Your task to perform on an android device: Open the Play Movies app and select the watchlist tab. Image 0: 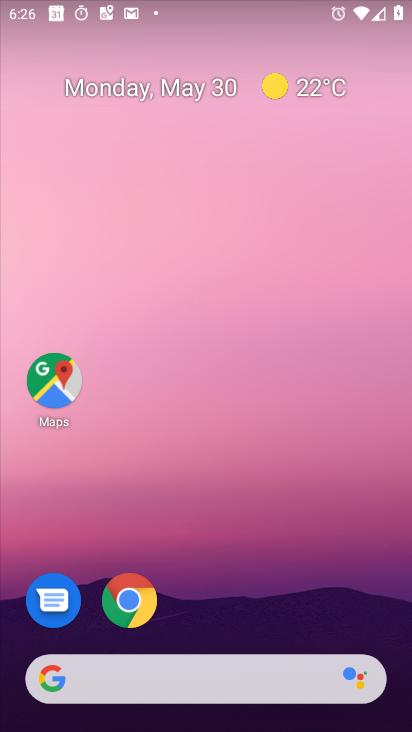
Step 0: press home button
Your task to perform on an android device: Open the Play Movies app and select the watchlist tab. Image 1: 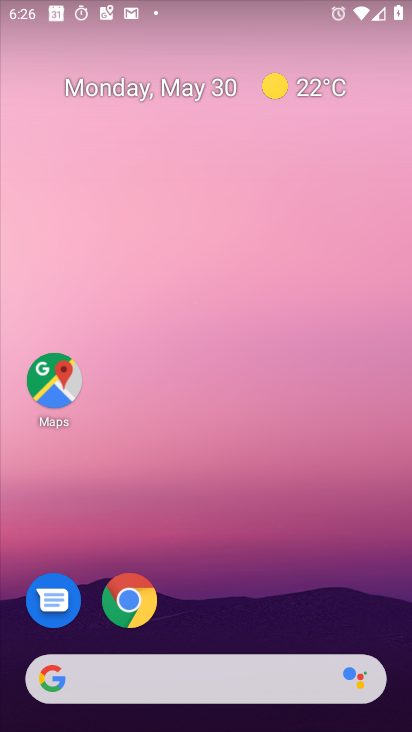
Step 1: drag from (313, 598) to (348, 42)
Your task to perform on an android device: Open the Play Movies app and select the watchlist tab. Image 2: 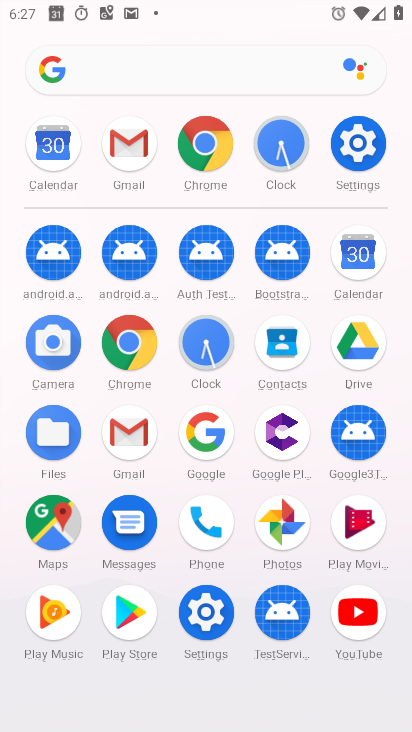
Step 2: click (365, 517)
Your task to perform on an android device: Open the Play Movies app and select the watchlist tab. Image 3: 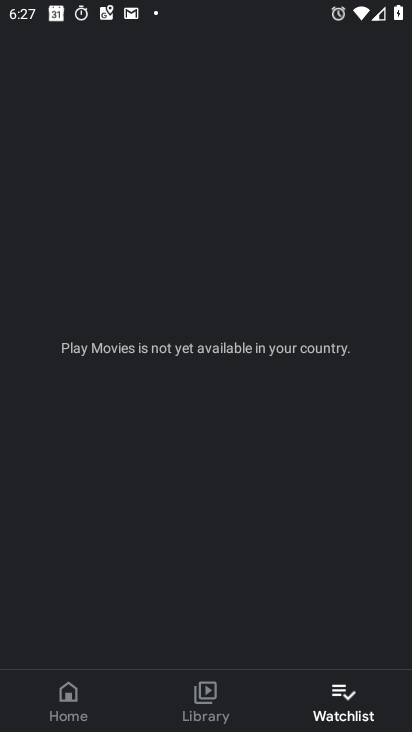
Step 3: click (351, 703)
Your task to perform on an android device: Open the Play Movies app and select the watchlist tab. Image 4: 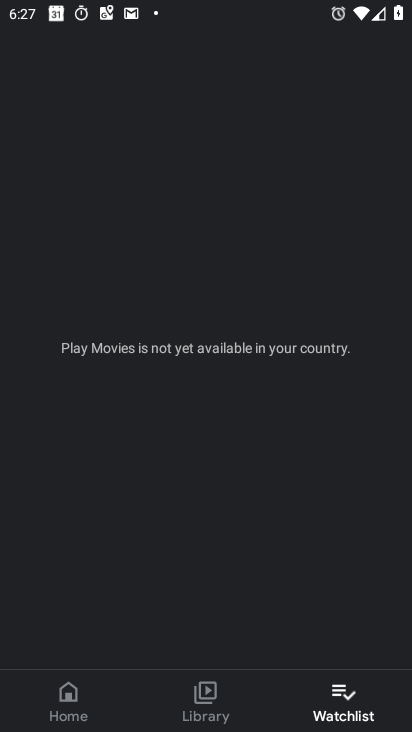
Step 4: task complete